Your task to perform on an android device: Do I have any events this weekend? Image 0: 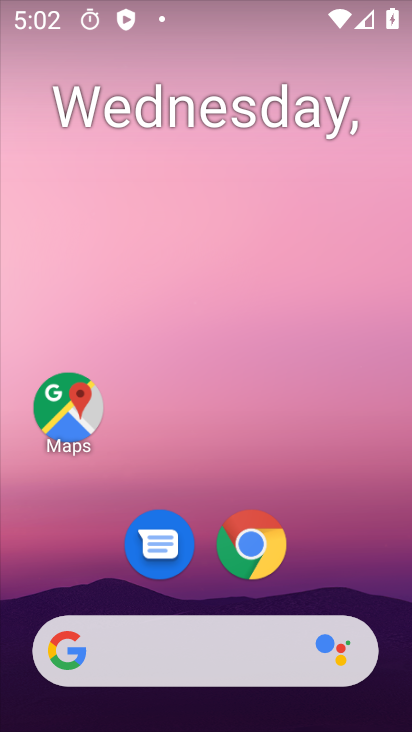
Step 0: drag from (159, 626) to (176, 148)
Your task to perform on an android device: Do I have any events this weekend? Image 1: 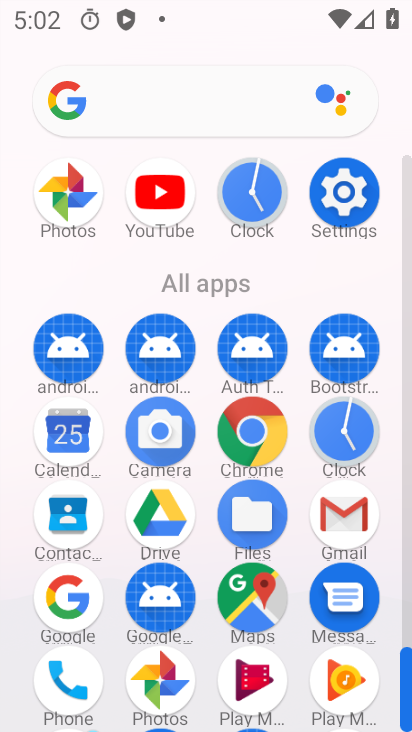
Step 1: click (69, 438)
Your task to perform on an android device: Do I have any events this weekend? Image 2: 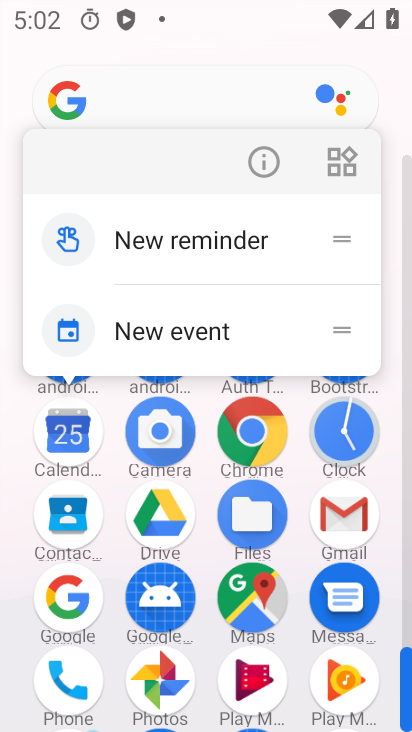
Step 2: click (81, 428)
Your task to perform on an android device: Do I have any events this weekend? Image 3: 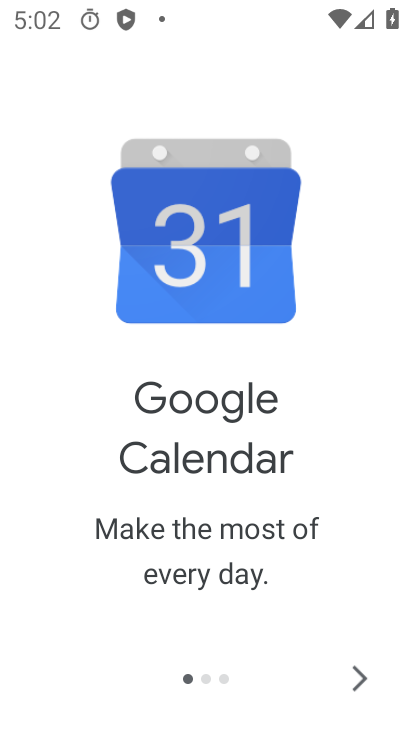
Step 3: click (361, 670)
Your task to perform on an android device: Do I have any events this weekend? Image 4: 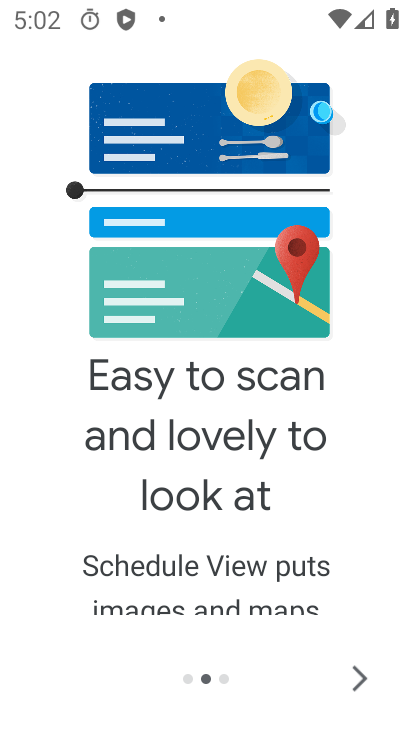
Step 4: click (361, 670)
Your task to perform on an android device: Do I have any events this weekend? Image 5: 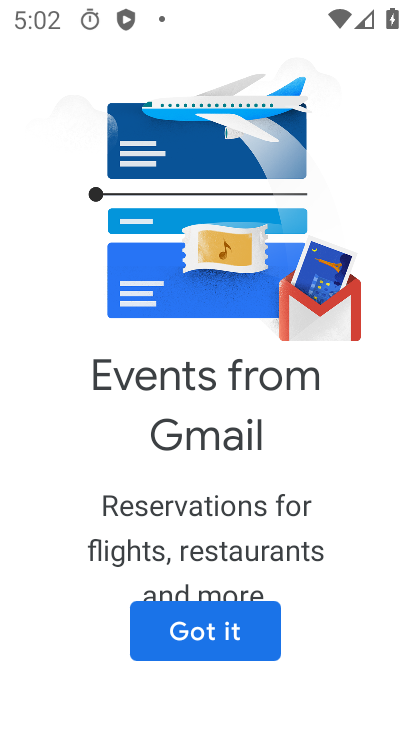
Step 5: click (215, 631)
Your task to perform on an android device: Do I have any events this weekend? Image 6: 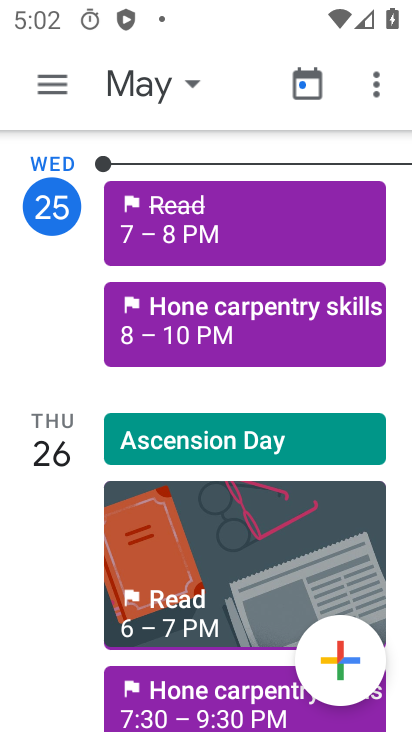
Step 6: drag from (229, 698) to (146, 328)
Your task to perform on an android device: Do I have any events this weekend? Image 7: 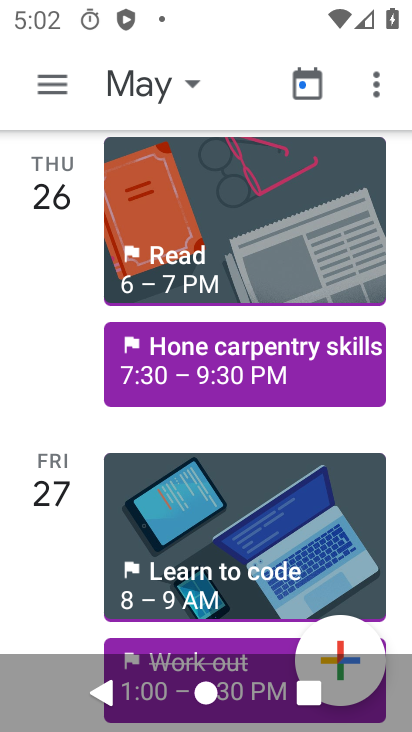
Step 7: click (139, 86)
Your task to perform on an android device: Do I have any events this weekend? Image 8: 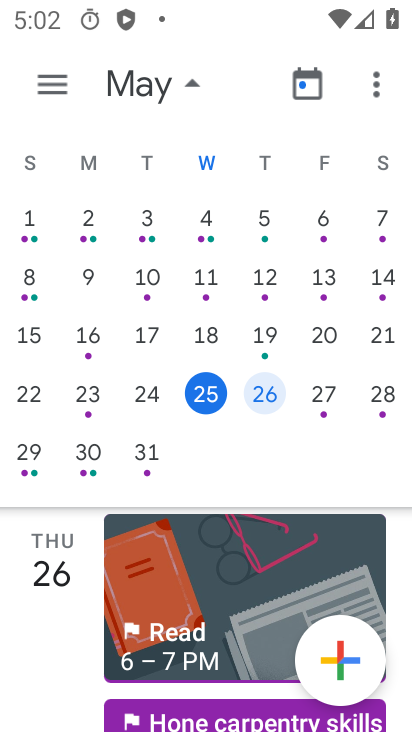
Step 8: click (379, 398)
Your task to perform on an android device: Do I have any events this weekend? Image 9: 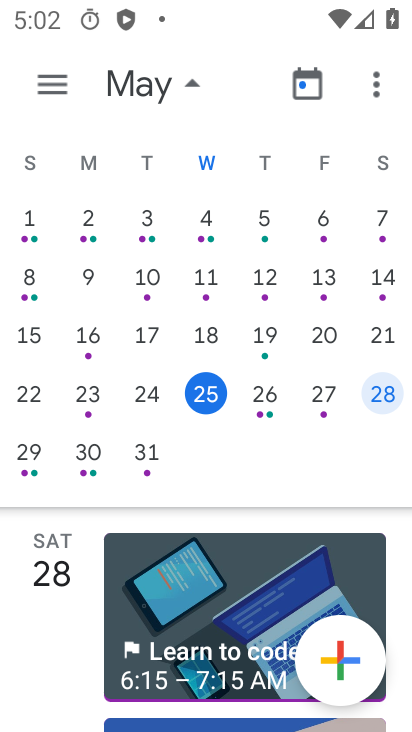
Step 9: drag from (167, 693) to (128, 515)
Your task to perform on an android device: Do I have any events this weekend? Image 10: 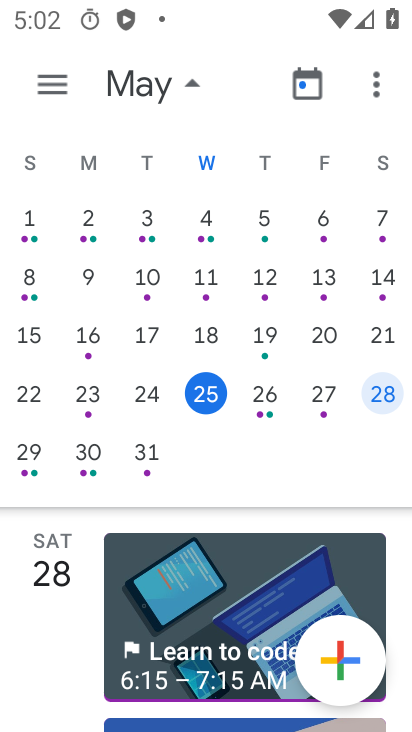
Step 10: click (185, 633)
Your task to perform on an android device: Do I have any events this weekend? Image 11: 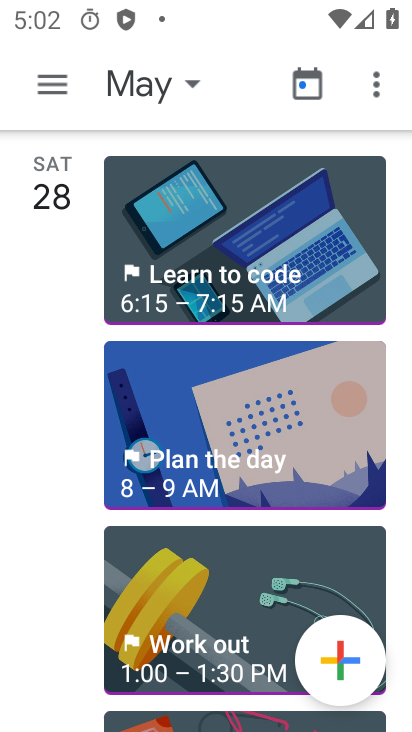
Step 11: task complete